Your task to perform on an android device: Open notification settings Image 0: 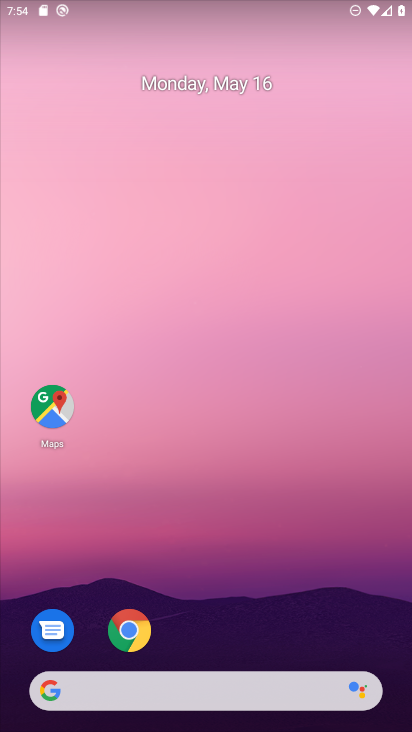
Step 0: drag from (234, 566) to (215, 180)
Your task to perform on an android device: Open notification settings Image 1: 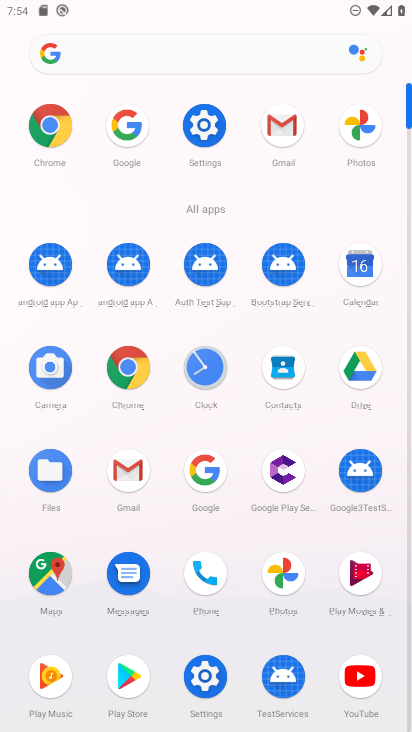
Step 1: click (206, 117)
Your task to perform on an android device: Open notification settings Image 2: 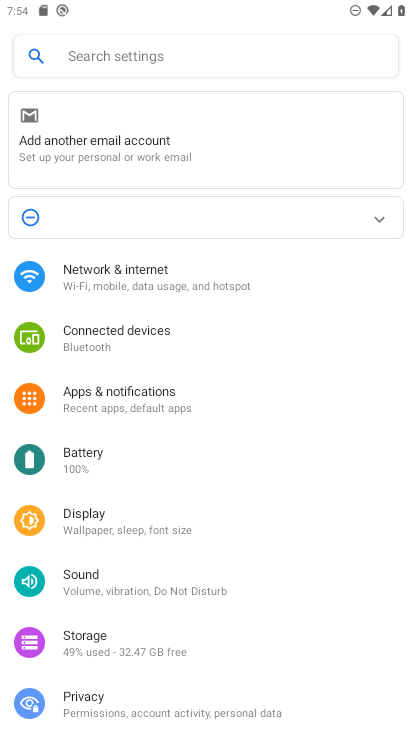
Step 2: click (174, 396)
Your task to perform on an android device: Open notification settings Image 3: 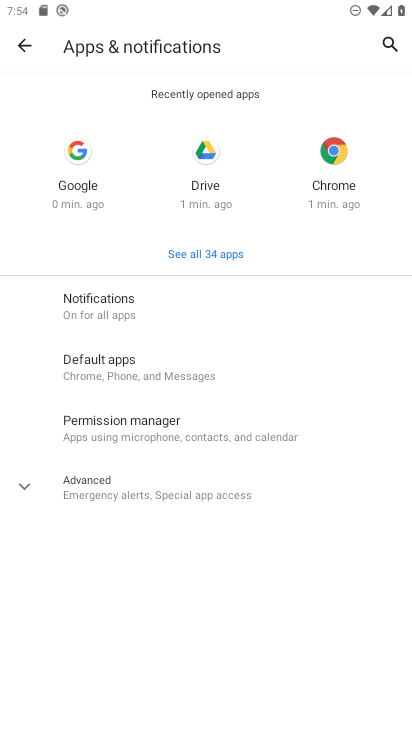
Step 3: task complete